Your task to perform on an android device: open a bookmark in the chrome app Image 0: 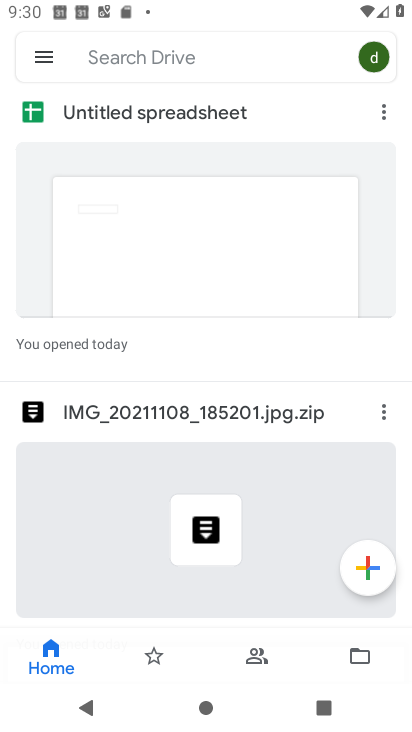
Step 0: drag from (188, 606) to (219, 367)
Your task to perform on an android device: open a bookmark in the chrome app Image 1: 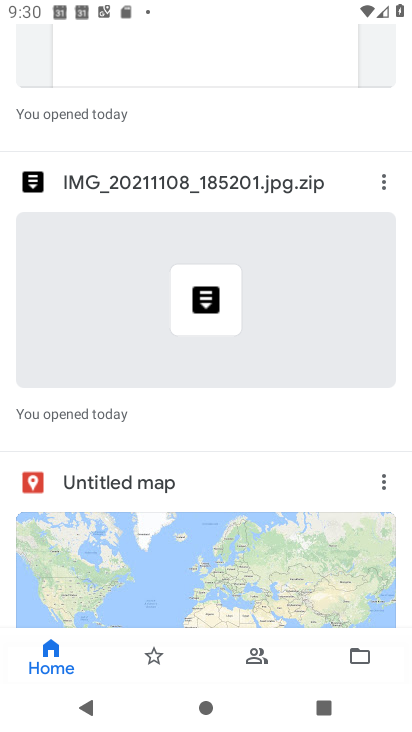
Step 1: press home button
Your task to perform on an android device: open a bookmark in the chrome app Image 2: 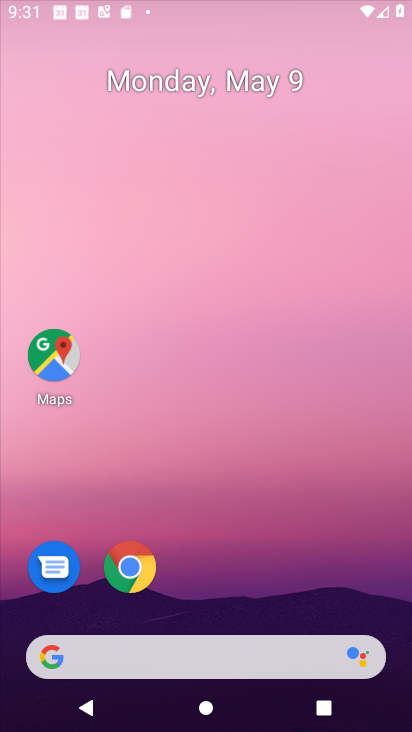
Step 2: drag from (201, 548) to (250, 203)
Your task to perform on an android device: open a bookmark in the chrome app Image 3: 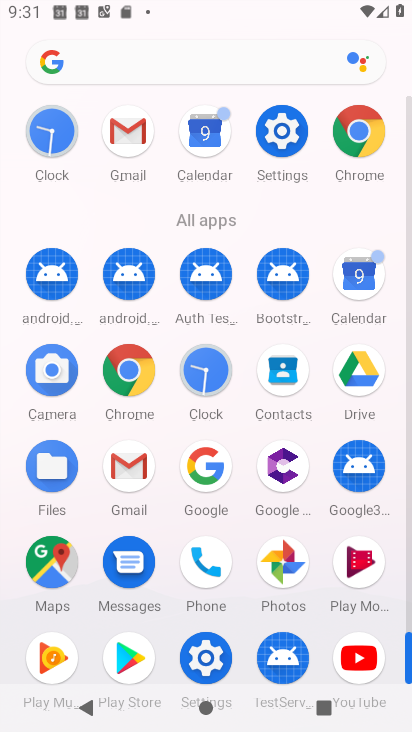
Step 3: click (128, 359)
Your task to perform on an android device: open a bookmark in the chrome app Image 4: 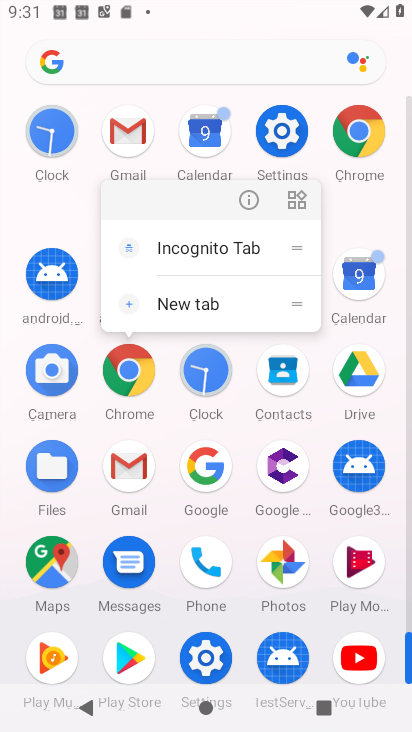
Step 4: click (251, 188)
Your task to perform on an android device: open a bookmark in the chrome app Image 5: 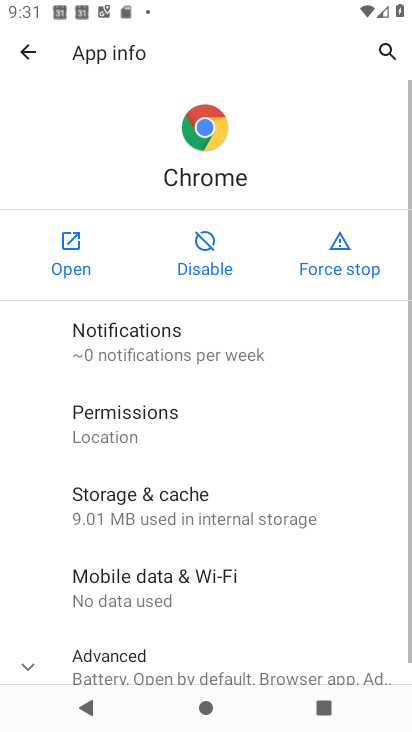
Step 5: click (72, 262)
Your task to perform on an android device: open a bookmark in the chrome app Image 6: 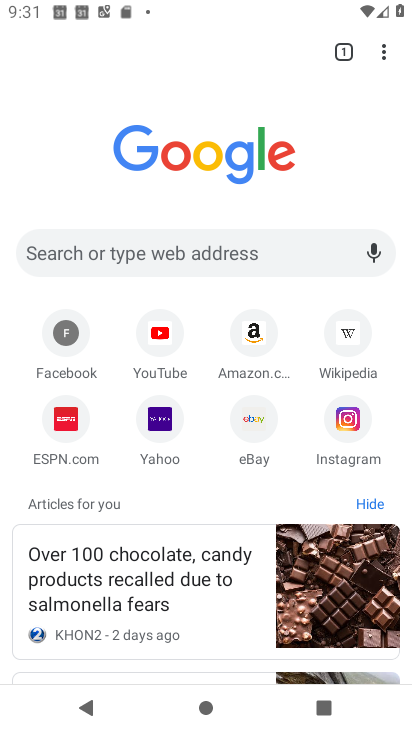
Step 6: task complete